Your task to perform on an android device: Go to calendar. Show me events next week Image 0: 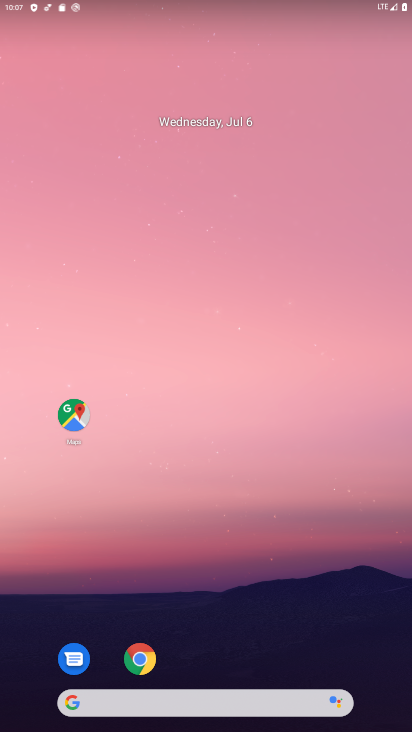
Step 0: drag from (220, 677) to (206, 406)
Your task to perform on an android device: Go to calendar. Show me events next week Image 1: 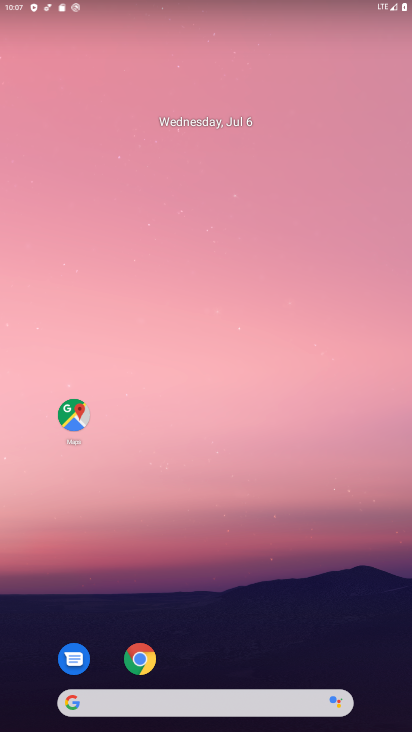
Step 1: click (200, 170)
Your task to perform on an android device: Go to calendar. Show me events next week Image 2: 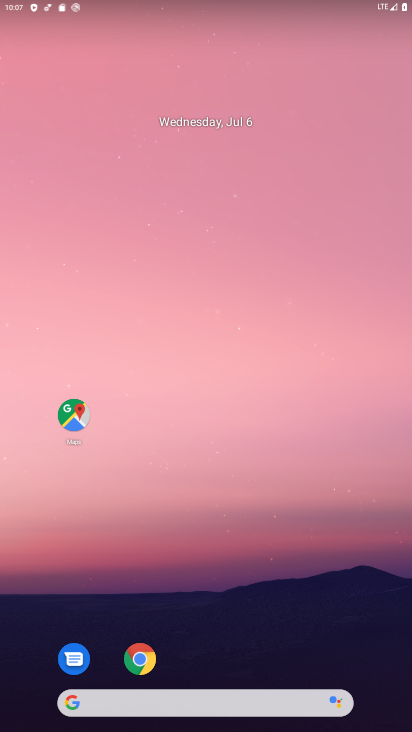
Step 2: drag from (216, 668) to (223, 146)
Your task to perform on an android device: Go to calendar. Show me events next week Image 3: 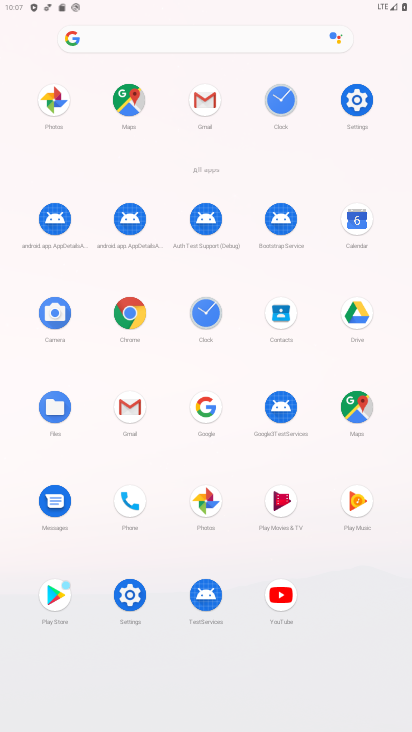
Step 3: click (357, 214)
Your task to perform on an android device: Go to calendar. Show me events next week Image 4: 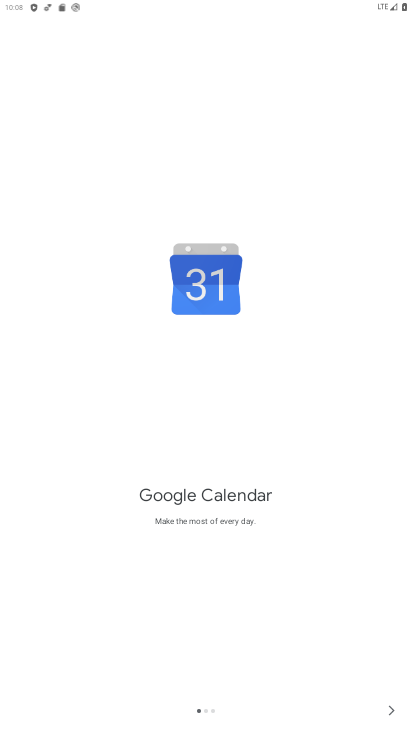
Step 4: click (385, 706)
Your task to perform on an android device: Go to calendar. Show me events next week Image 5: 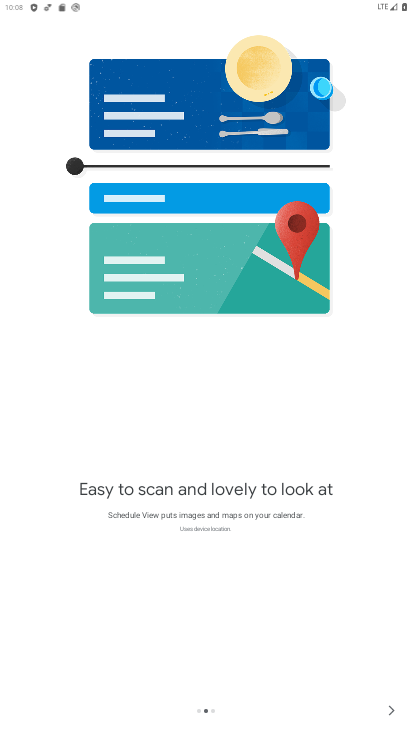
Step 5: click (385, 706)
Your task to perform on an android device: Go to calendar. Show me events next week Image 6: 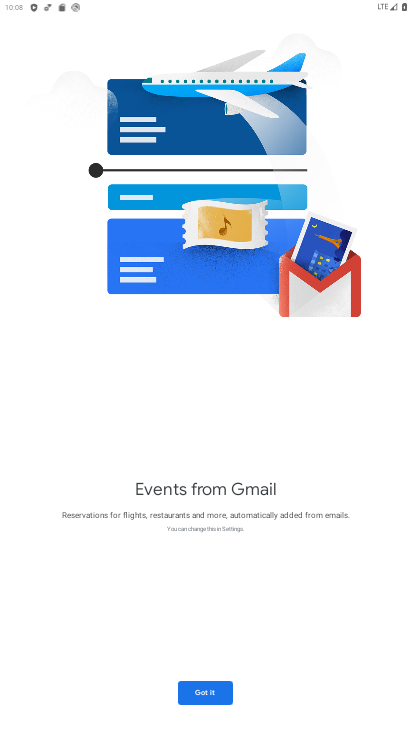
Step 6: click (205, 685)
Your task to perform on an android device: Go to calendar. Show me events next week Image 7: 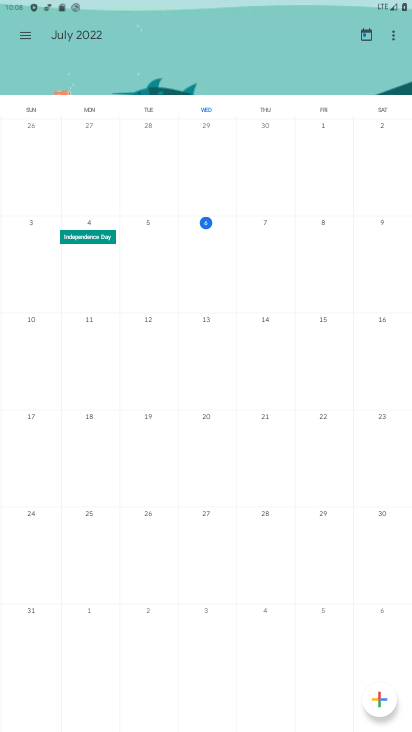
Step 7: click (21, 28)
Your task to perform on an android device: Go to calendar. Show me events next week Image 8: 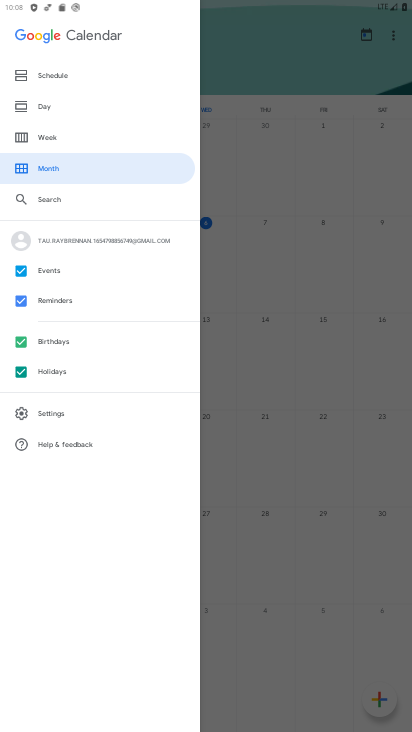
Step 8: click (23, 368)
Your task to perform on an android device: Go to calendar. Show me events next week Image 9: 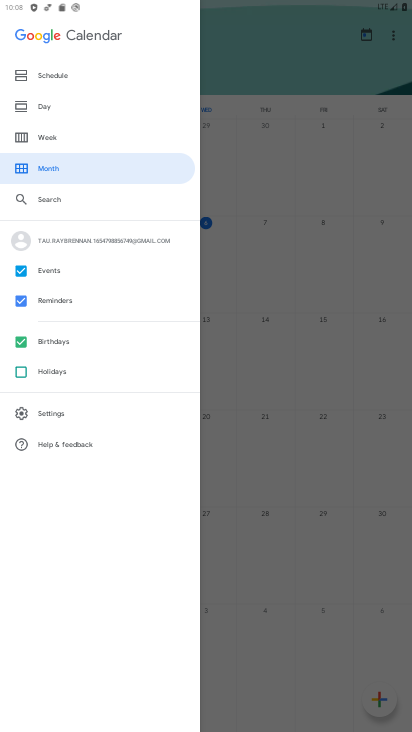
Step 9: click (17, 337)
Your task to perform on an android device: Go to calendar. Show me events next week Image 10: 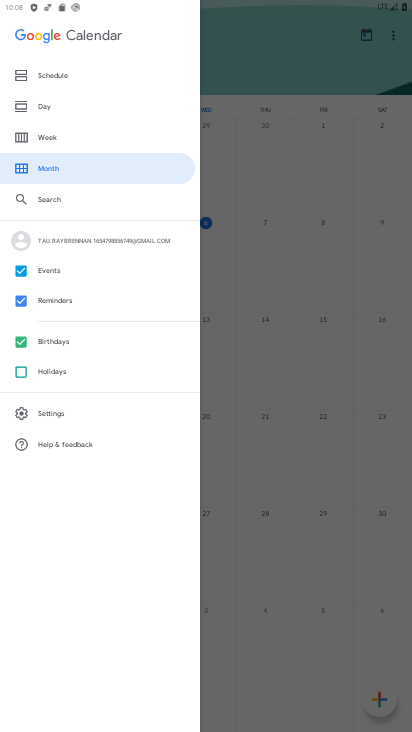
Step 10: click (23, 301)
Your task to perform on an android device: Go to calendar. Show me events next week Image 11: 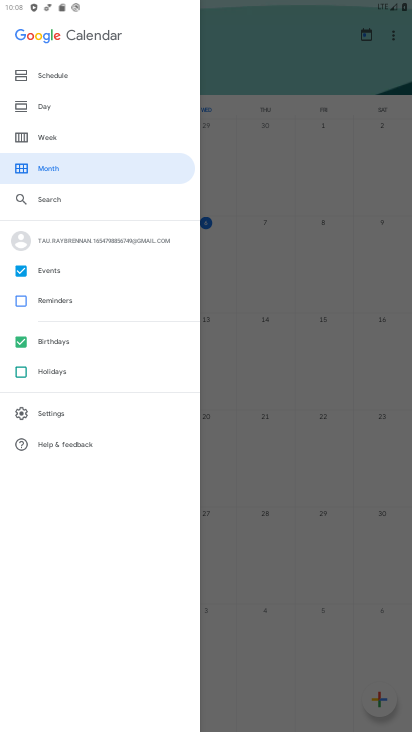
Step 11: click (34, 134)
Your task to perform on an android device: Go to calendar. Show me events next week Image 12: 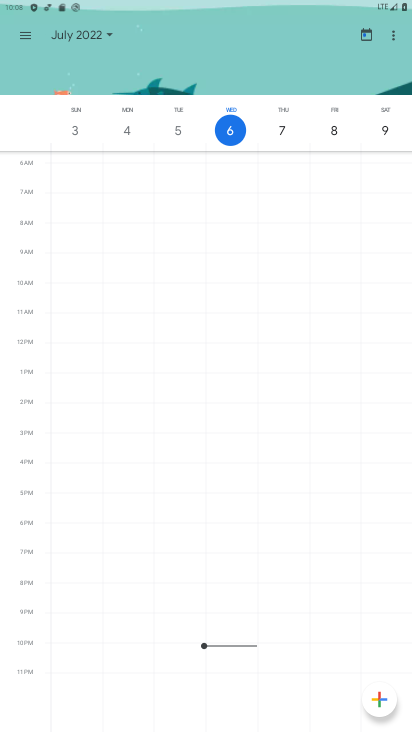
Step 12: drag from (376, 134) to (65, 132)
Your task to perform on an android device: Go to calendar. Show me events next week Image 13: 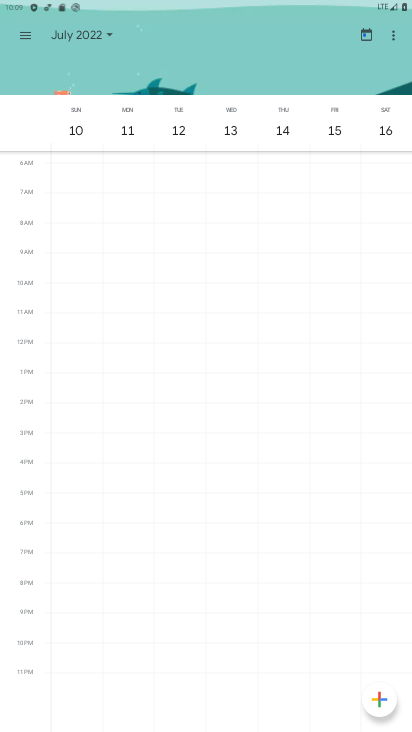
Step 13: click (77, 131)
Your task to perform on an android device: Go to calendar. Show me events next week Image 14: 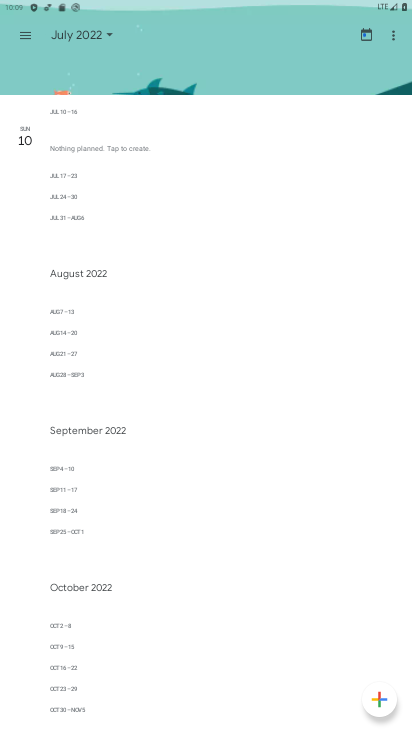
Step 14: click (29, 37)
Your task to perform on an android device: Go to calendar. Show me events next week Image 15: 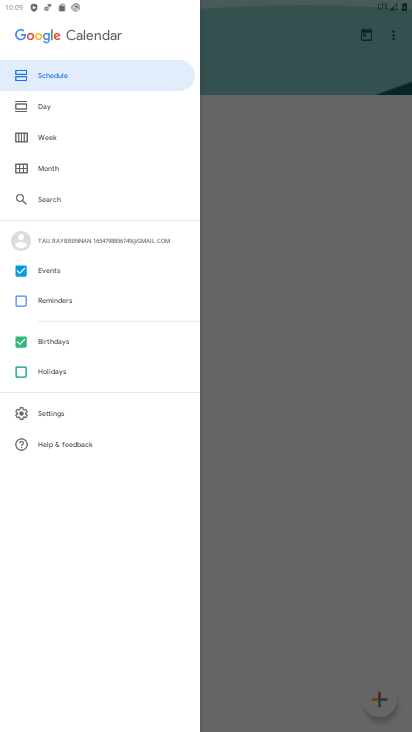
Step 15: click (31, 132)
Your task to perform on an android device: Go to calendar. Show me events next week Image 16: 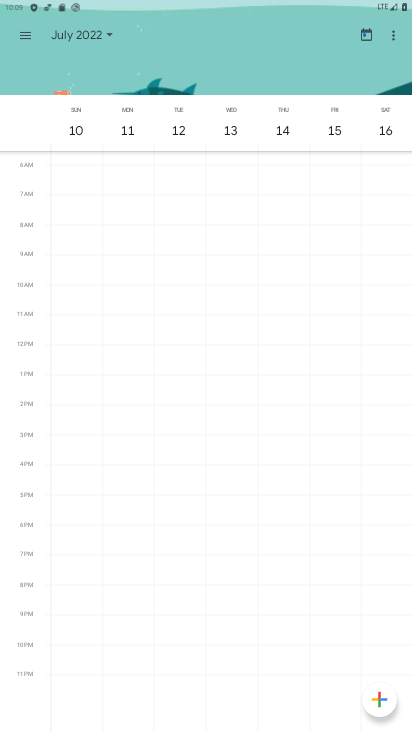
Step 16: click (69, 131)
Your task to perform on an android device: Go to calendar. Show me events next week Image 17: 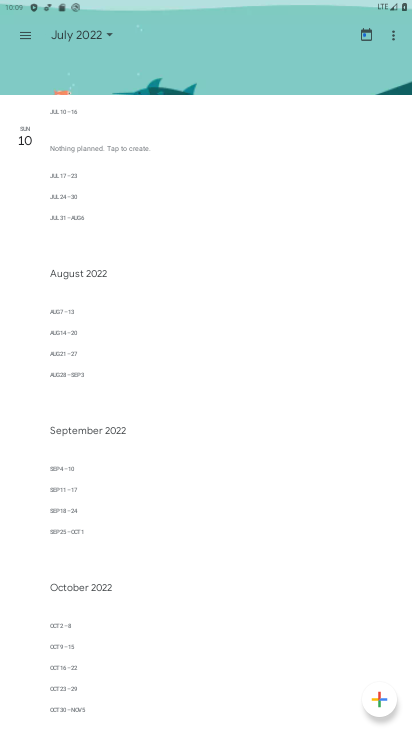
Step 17: task complete